Your task to perform on an android device: open device folders in google photos Image 0: 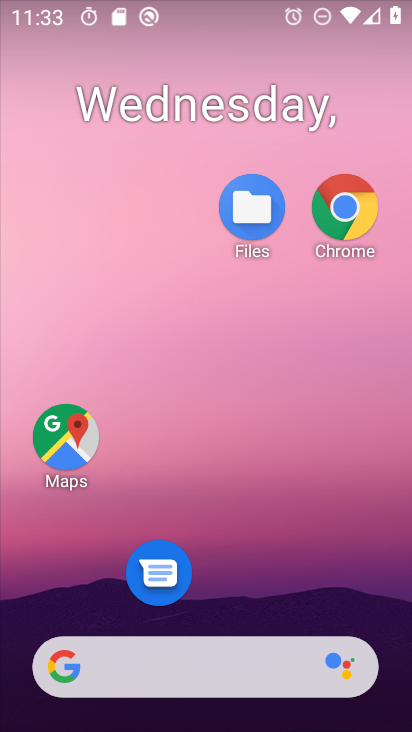
Step 0: drag from (262, 572) to (306, 120)
Your task to perform on an android device: open device folders in google photos Image 1: 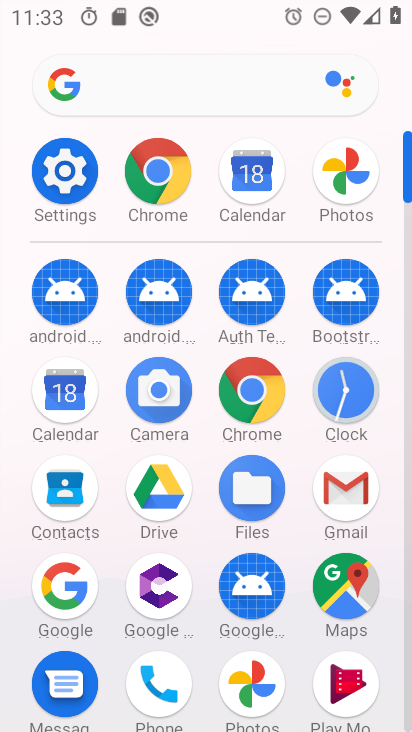
Step 1: drag from (261, 549) to (284, 231)
Your task to perform on an android device: open device folders in google photos Image 2: 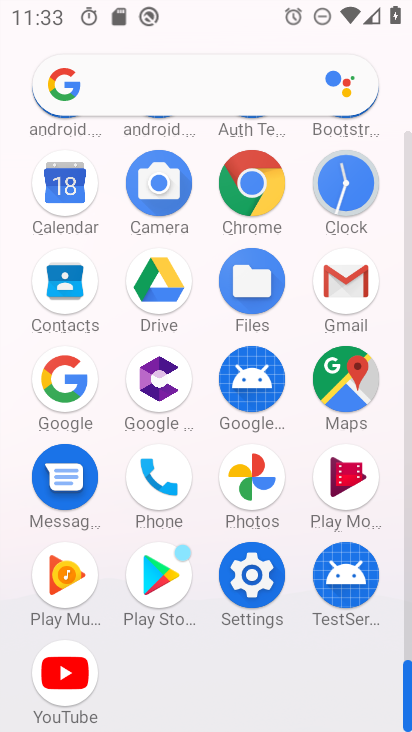
Step 2: click (272, 486)
Your task to perform on an android device: open device folders in google photos Image 3: 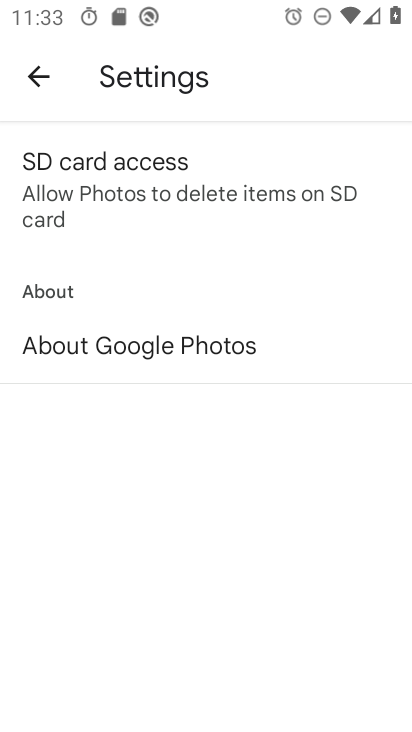
Step 3: click (39, 70)
Your task to perform on an android device: open device folders in google photos Image 4: 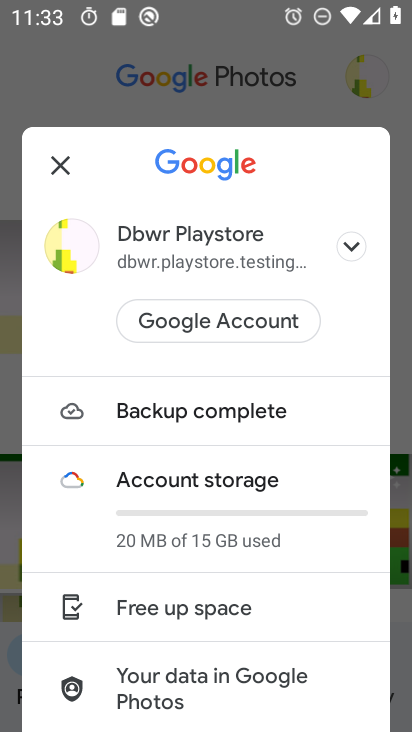
Step 4: task complete